Your task to perform on an android device: Open Wikipedia Image 0: 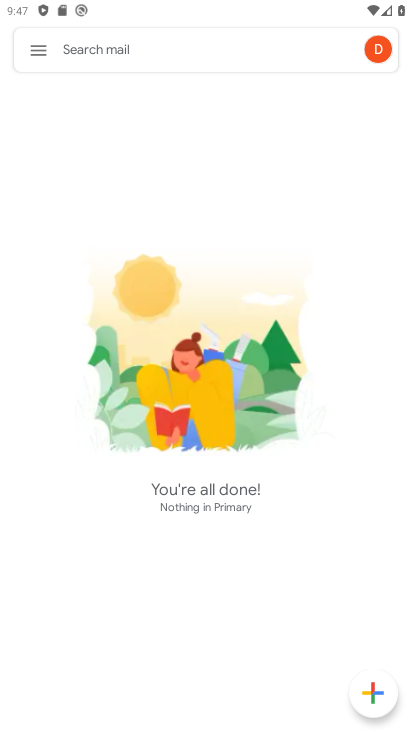
Step 0: press home button
Your task to perform on an android device: Open Wikipedia Image 1: 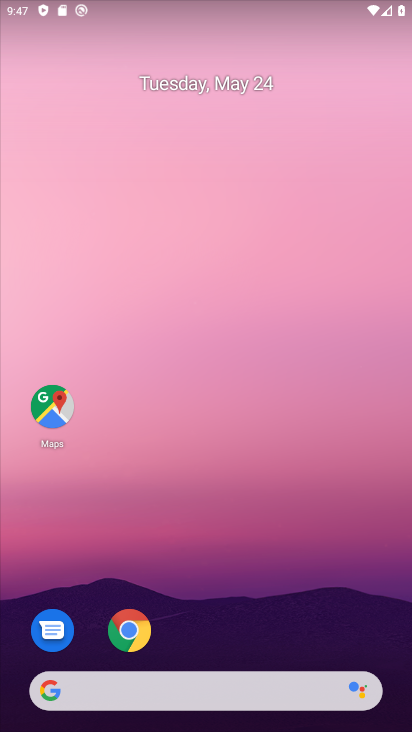
Step 1: click (125, 627)
Your task to perform on an android device: Open Wikipedia Image 2: 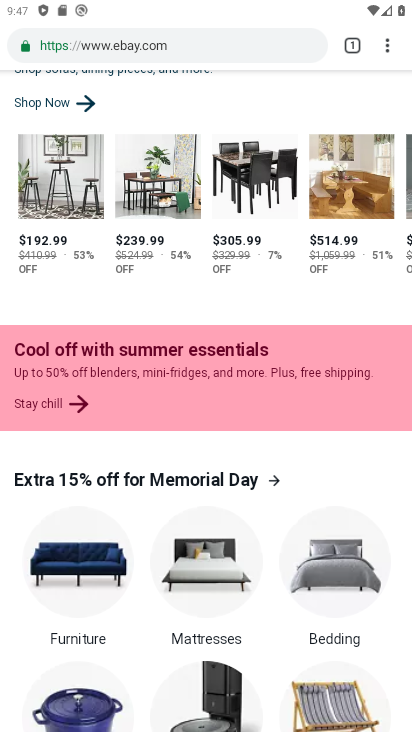
Step 2: click (349, 49)
Your task to perform on an android device: Open Wikipedia Image 3: 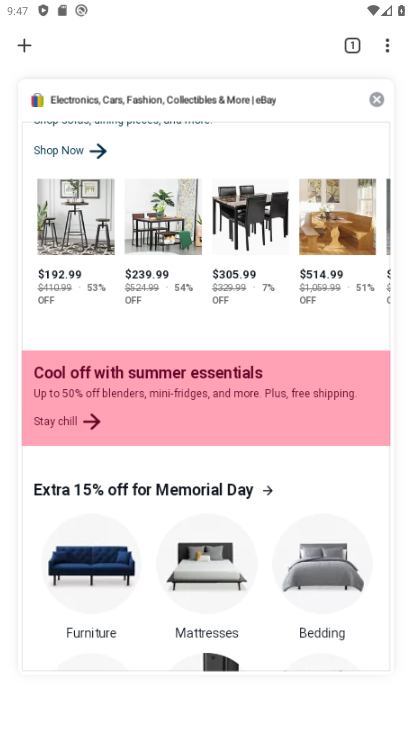
Step 3: click (372, 99)
Your task to perform on an android device: Open Wikipedia Image 4: 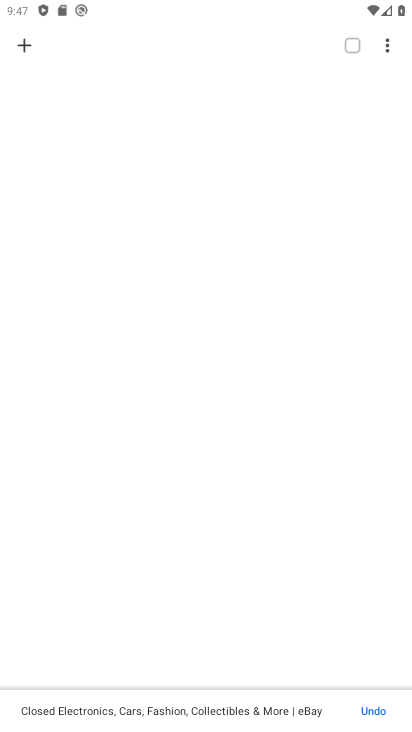
Step 4: click (26, 40)
Your task to perform on an android device: Open Wikipedia Image 5: 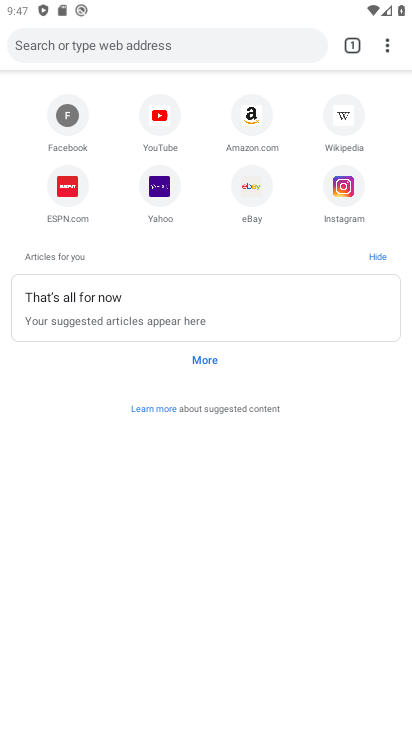
Step 5: click (337, 109)
Your task to perform on an android device: Open Wikipedia Image 6: 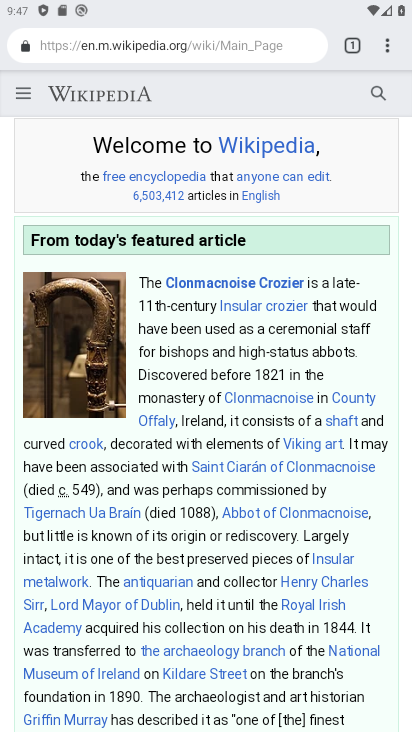
Step 6: task complete